Your task to perform on an android device: What's a good restaurant in Philadelphia? Image 0: 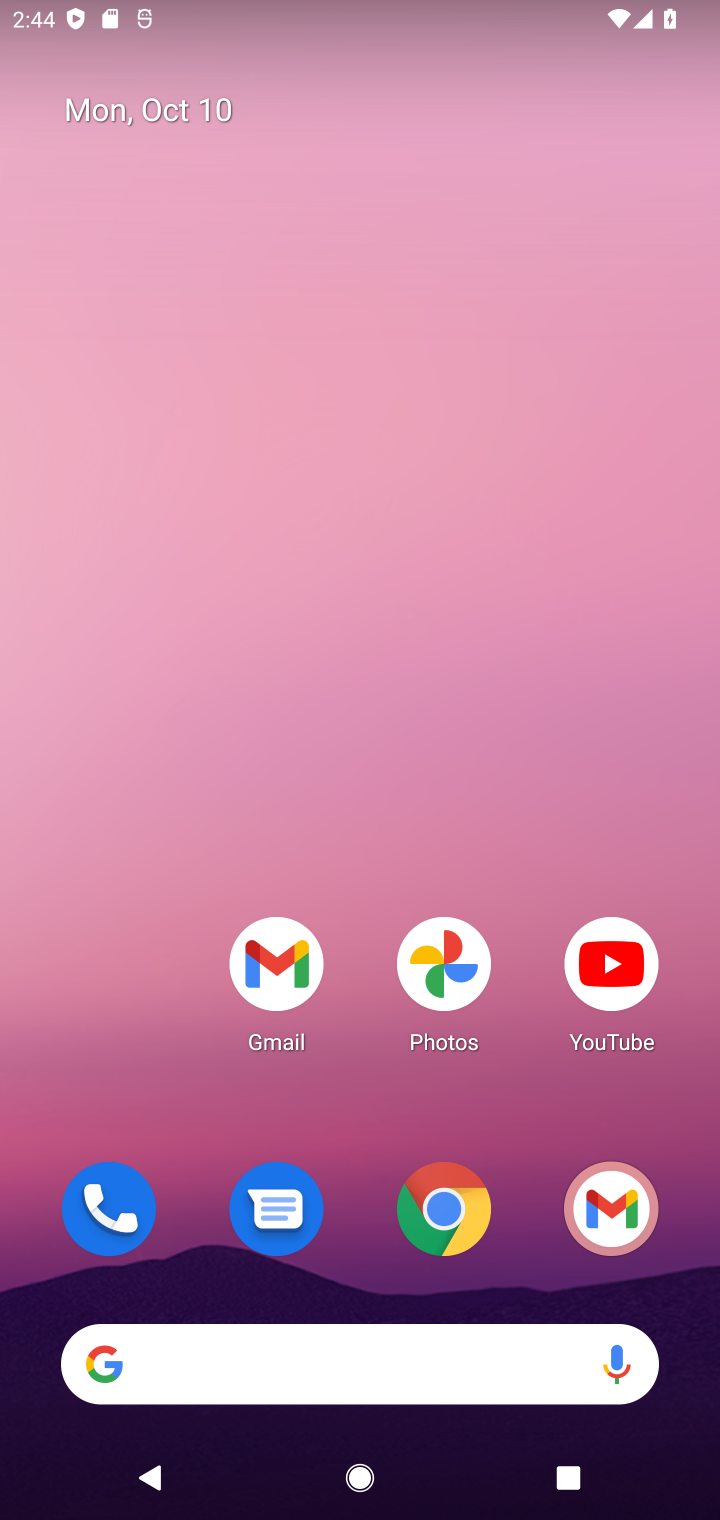
Step 0: click (439, 1205)
Your task to perform on an android device: What's a good restaurant in Philadelphia? Image 1: 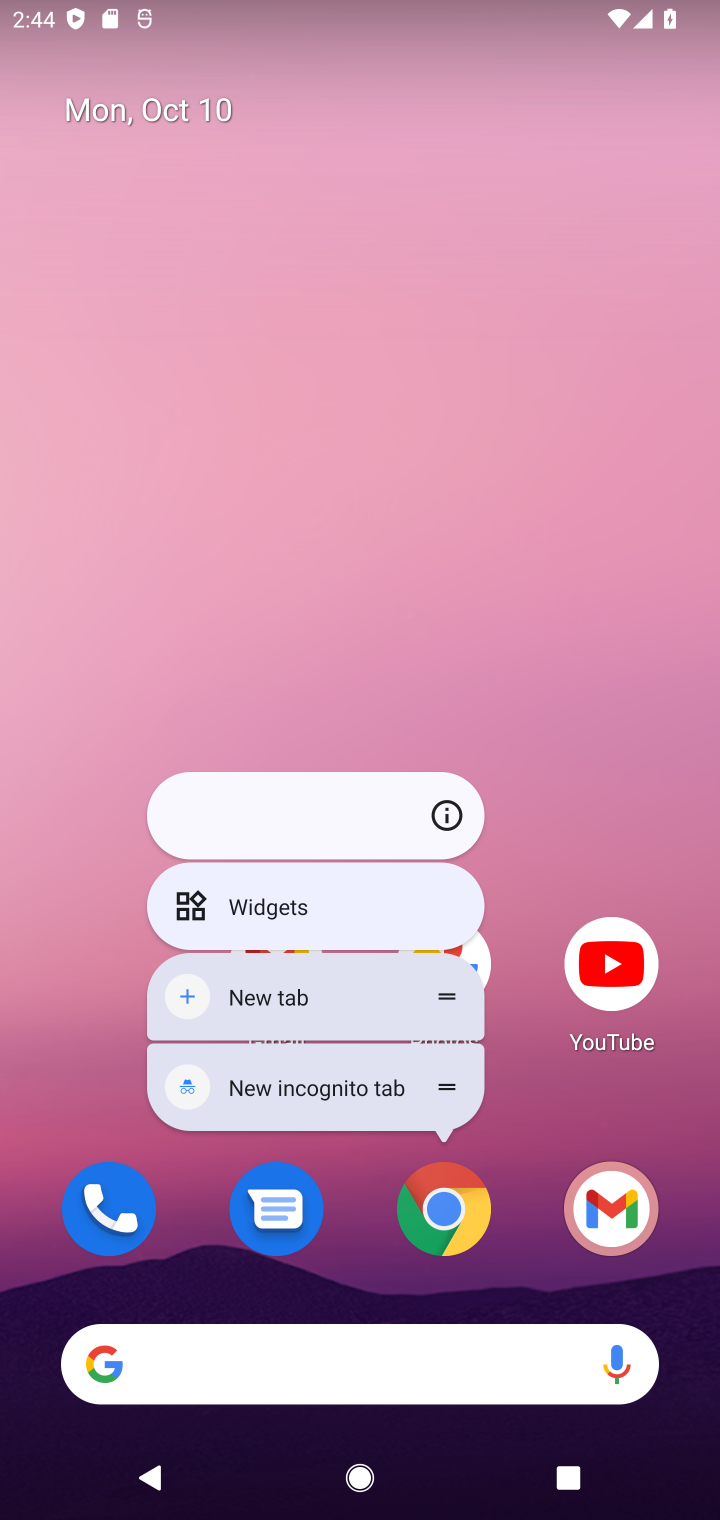
Step 1: click (428, 1205)
Your task to perform on an android device: What's a good restaurant in Philadelphia? Image 2: 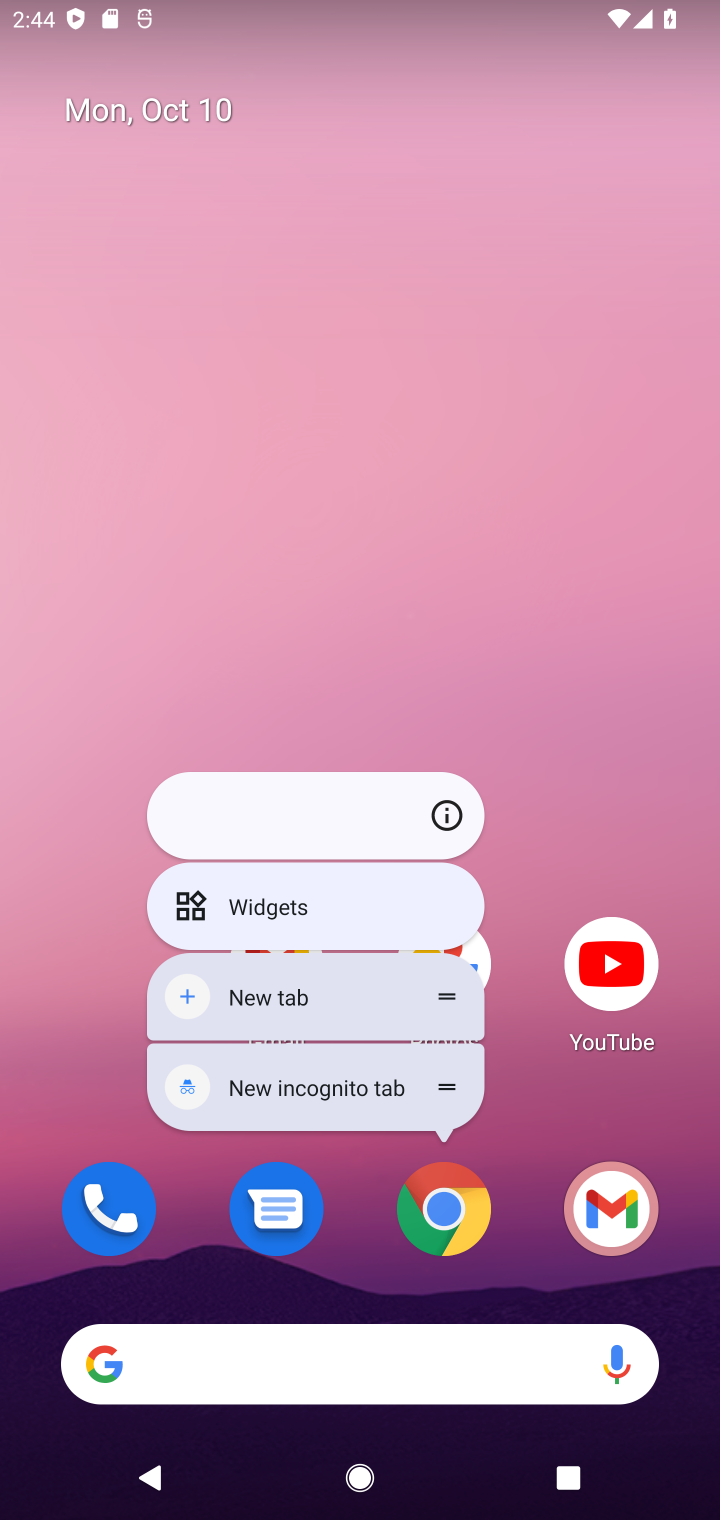
Step 2: click (435, 1201)
Your task to perform on an android device: What's a good restaurant in Philadelphia? Image 3: 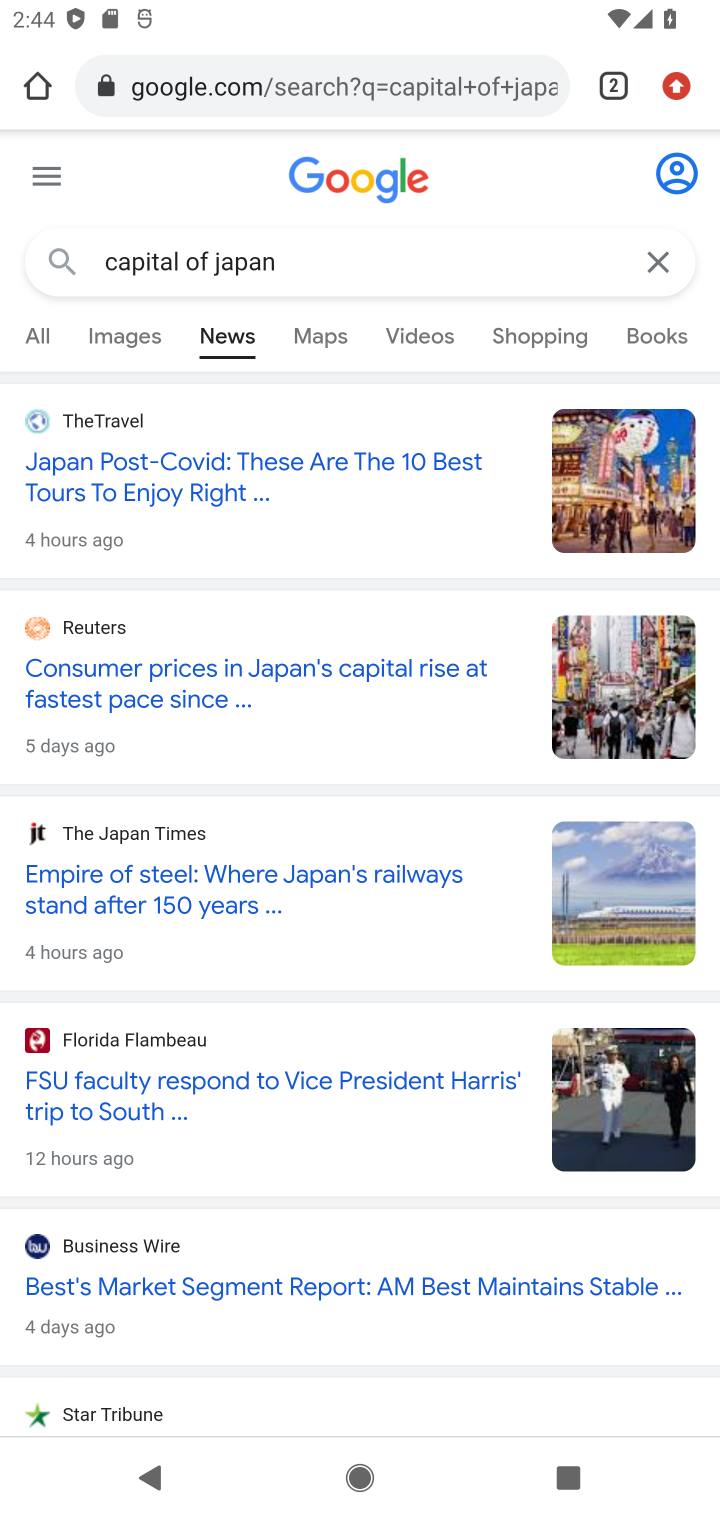
Step 3: click (648, 263)
Your task to perform on an android device: What's a good restaurant in Philadelphia? Image 4: 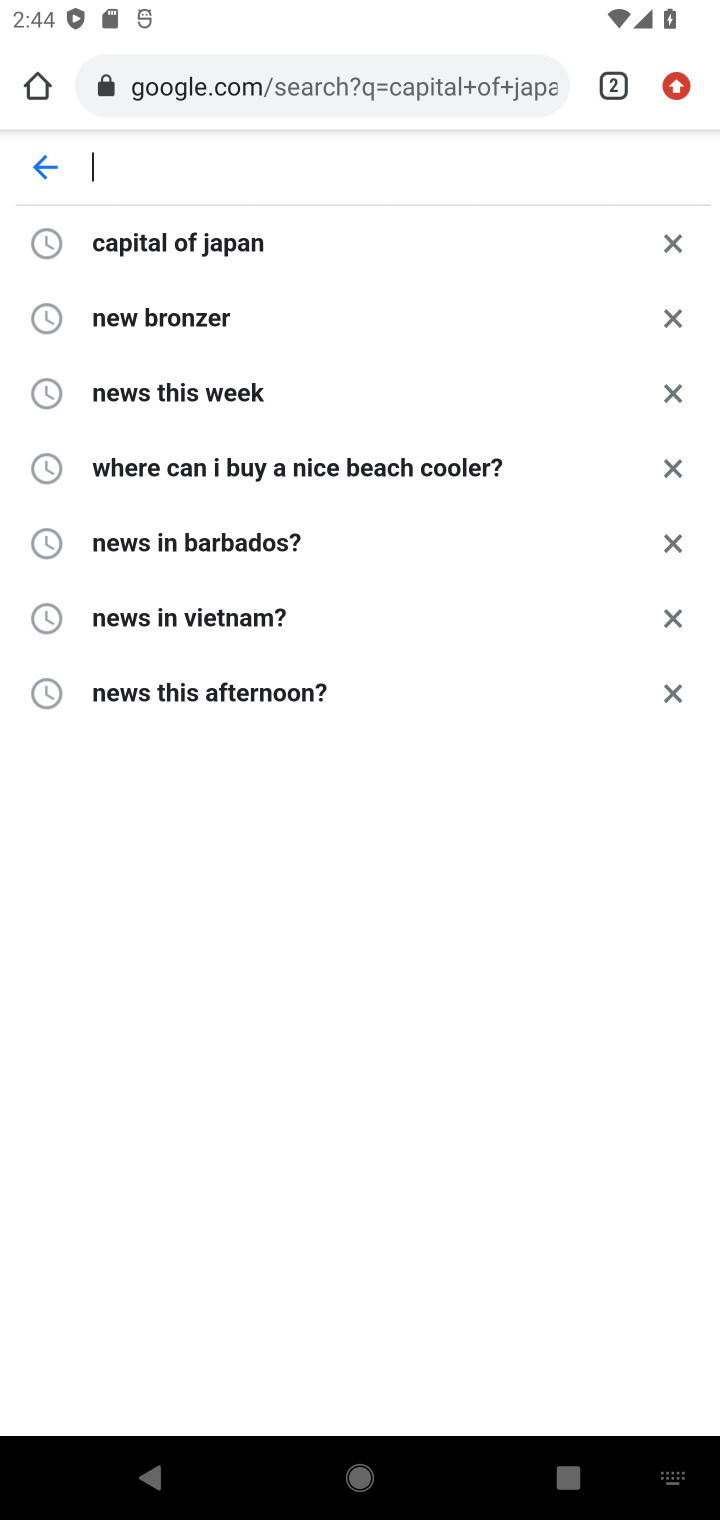
Step 4: type "good restaurant in Philadelphia?"
Your task to perform on an android device: What's a good restaurant in Philadelphia? Image 5: 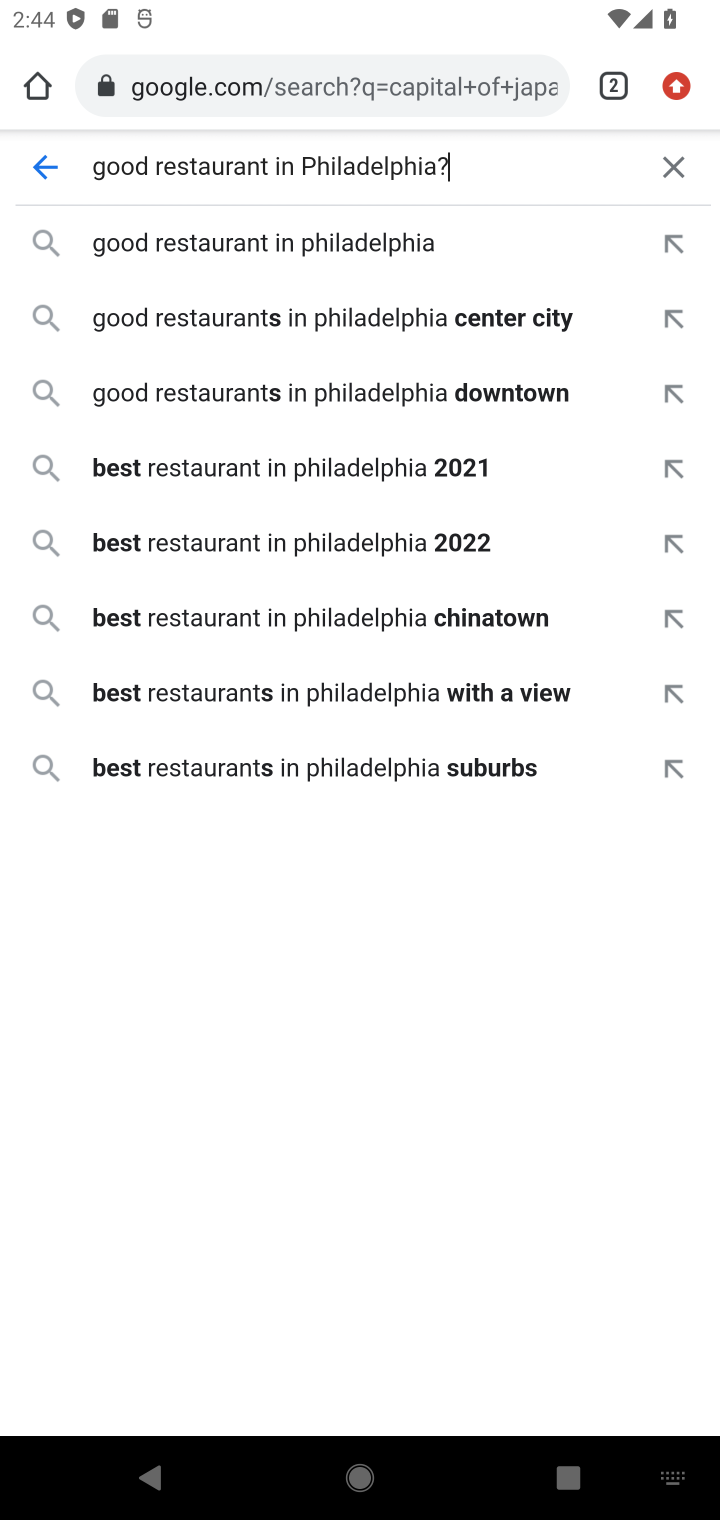
Step 5: press enter
Your task to perform on an android device: What's a good restaurant in Philadelphia? Image 6: 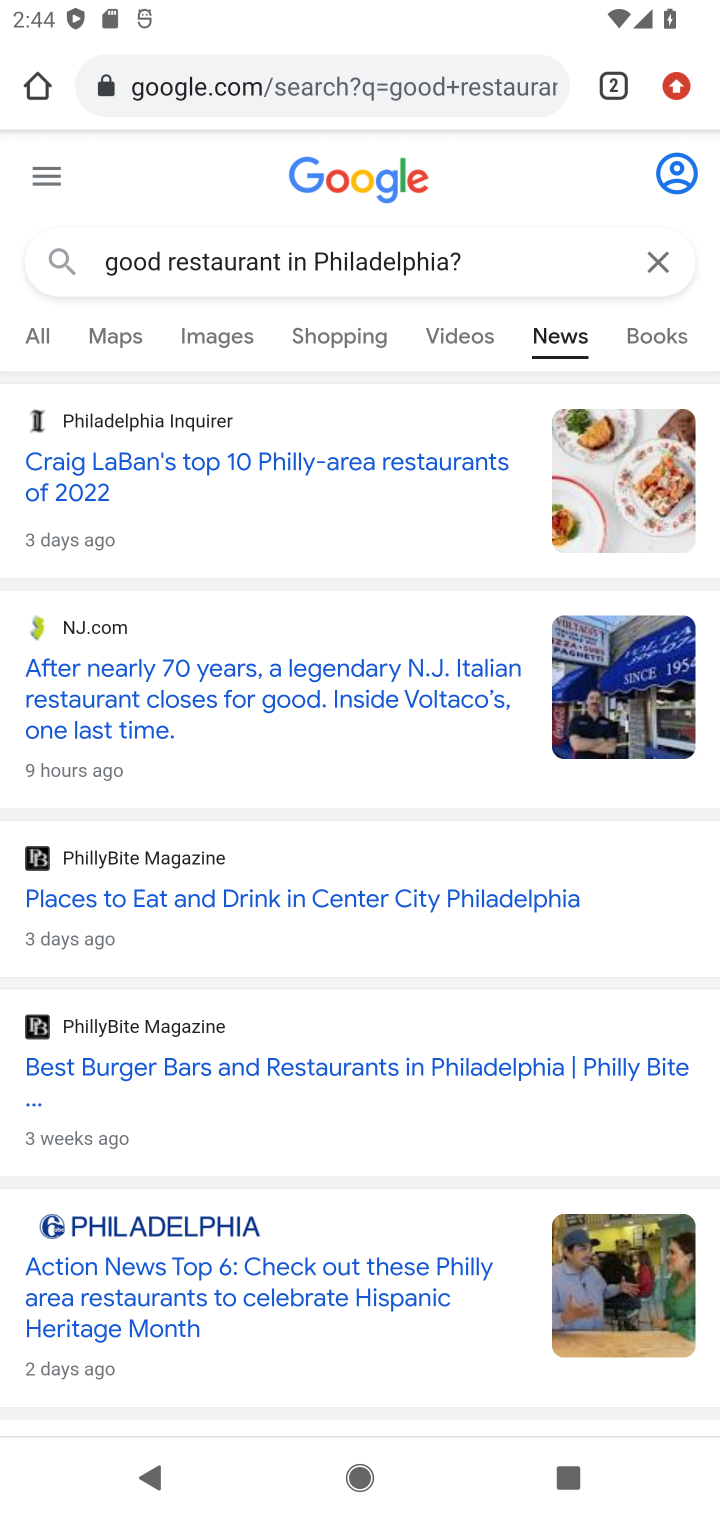
Step 6: click (30, 334)
Your task to perform on an android device: What's a good restaurant in Philadelphia? Image 7: 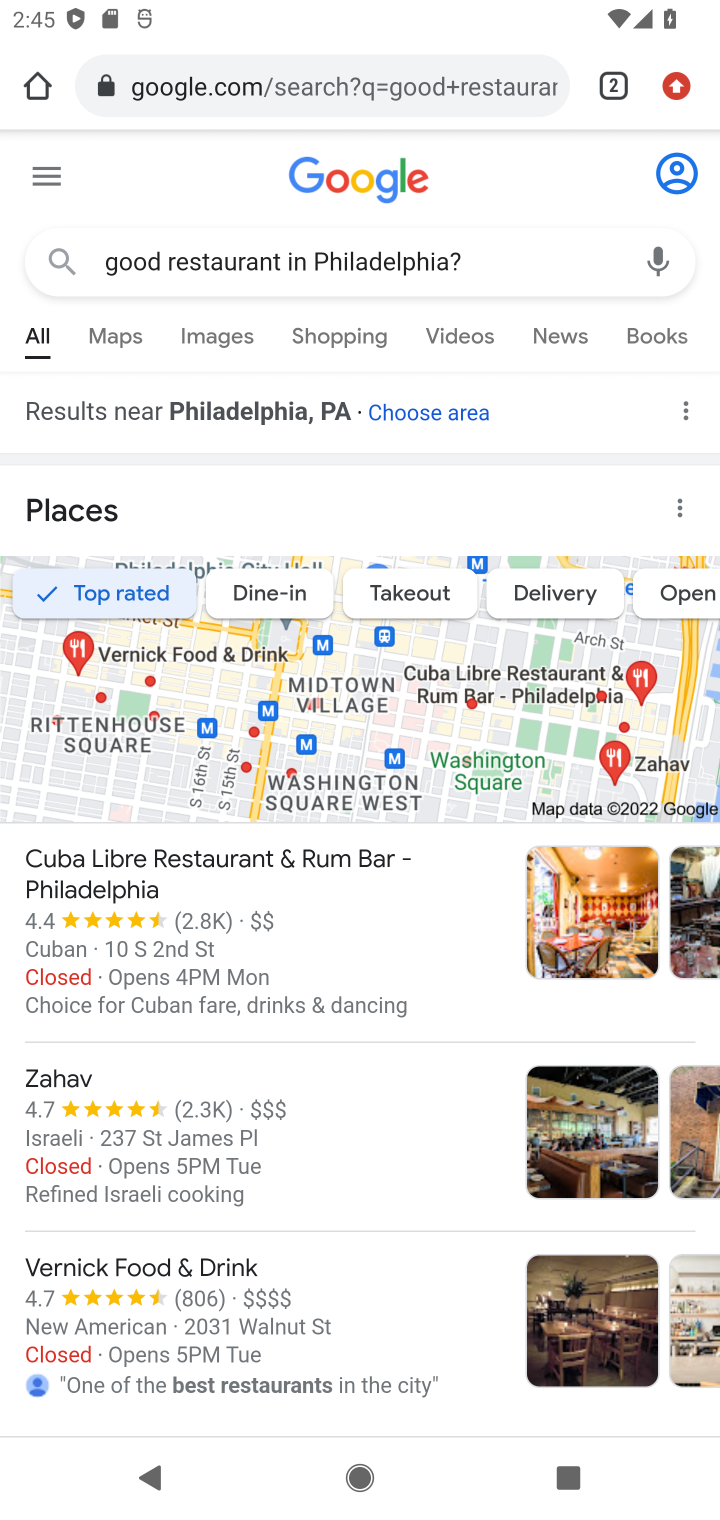
Step 7: task complete